Your task to perform on an android device: turn on wifi Image 0: 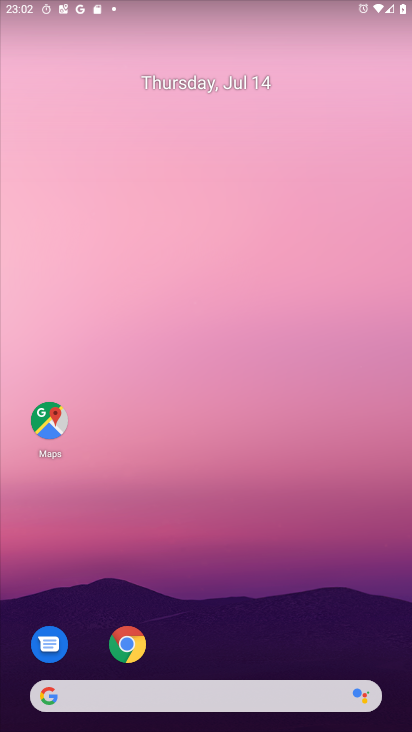
Step 0: drag from (220, 648) to (252, 68)
Your task to perform on an android device: turn on wifi Image 1: 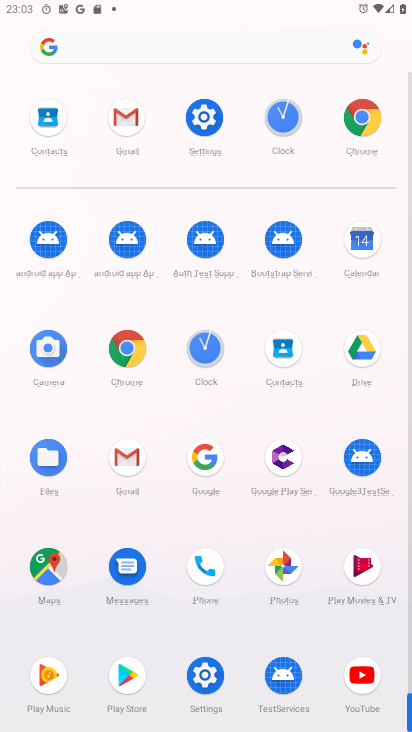
Step 1: click (213, 111)
Your task to perform on an android device: turn on wifi Image 2: 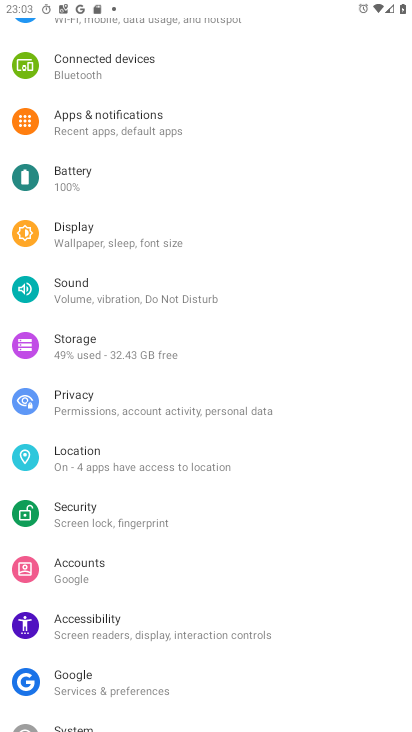
Step 2: drag from (213, 111) to (239, 569)
Your task to perform on an android device: turn on wifi Image 3: 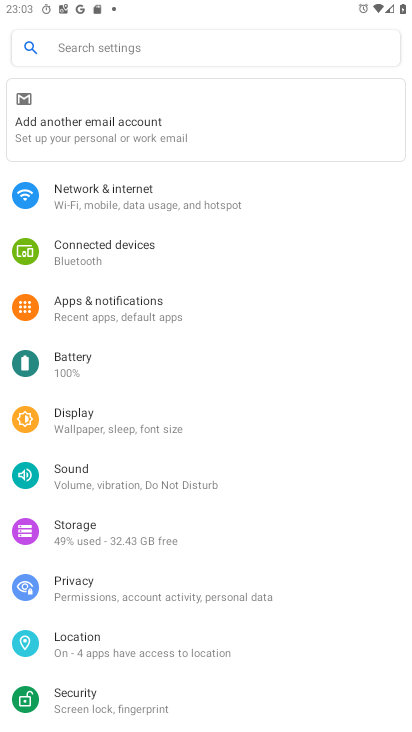
Step 3: click (154, 200)
Your task to perform on an android device: turn on wifi Image 4: 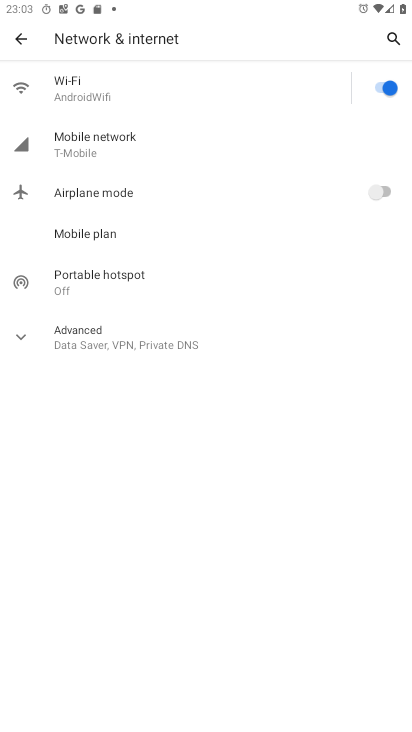
Step 4: task complete